Your task to perform on an android device: clear all cookies in the chrome app Image 0: 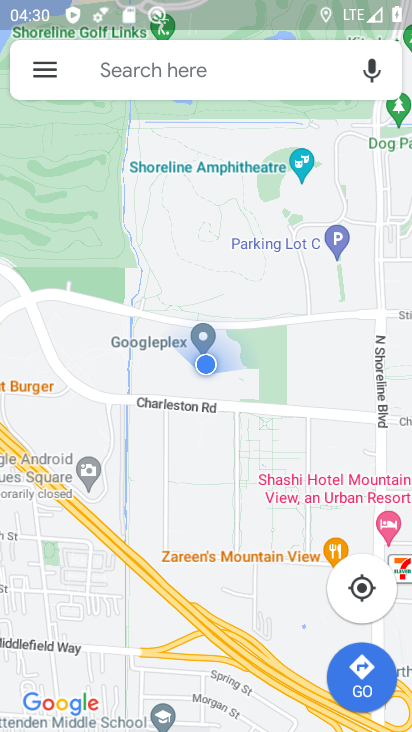
Step 0: press home button
Your task to perform on an android device: clear all cookies in the chrome app Image 1: 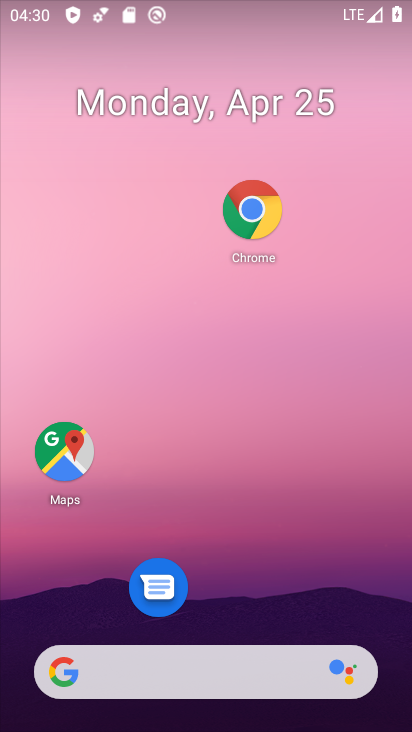
Step 1: click (252, 207)
Your task to perform on an android device: clear all cookies in the chrome app Image 2: 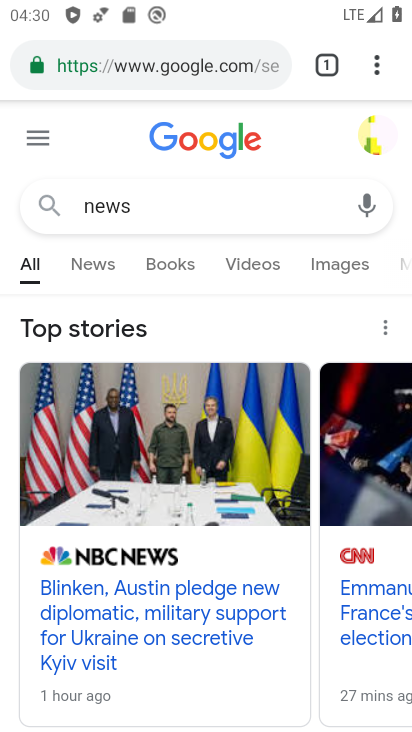
Step 2: click (384, 79)
Your task to perform on an android device: clear all cookies in the chrome app Image 3: 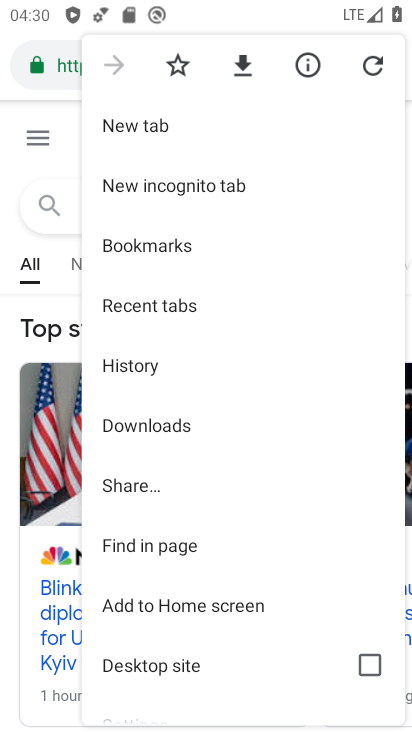
Step 3: click (258, 364)
Your task to perform on an android device: clear all cookies in the chrome app Image 4: 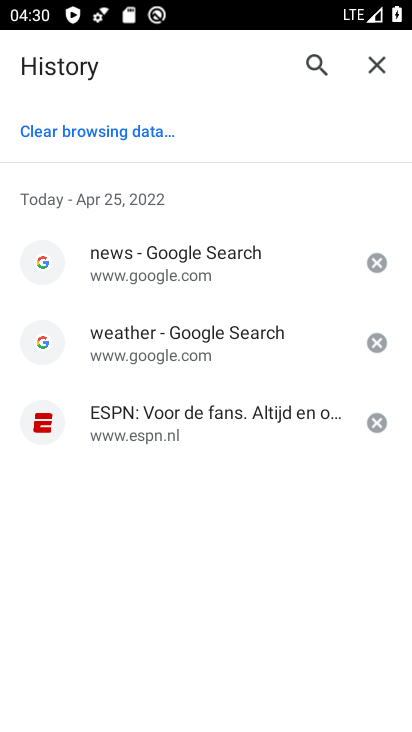
Step 4: click (146, 141)
Your task to perform on an android device: clear all cookies in the chrome app Image 5: 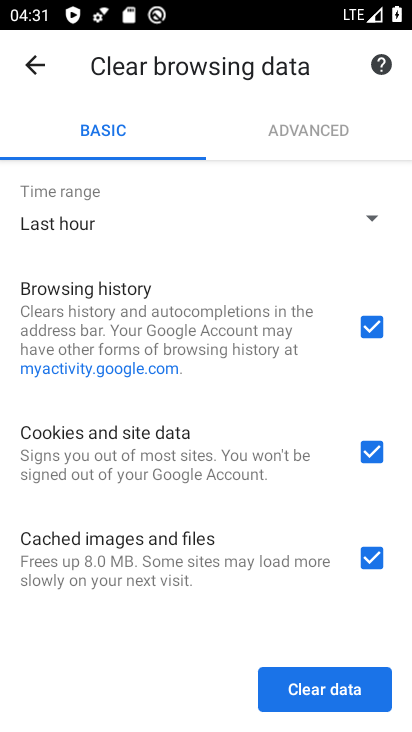
Step 5: click (374, 562)
Your task to perform on an android device: clear all cookies in the chrome app Image 6: 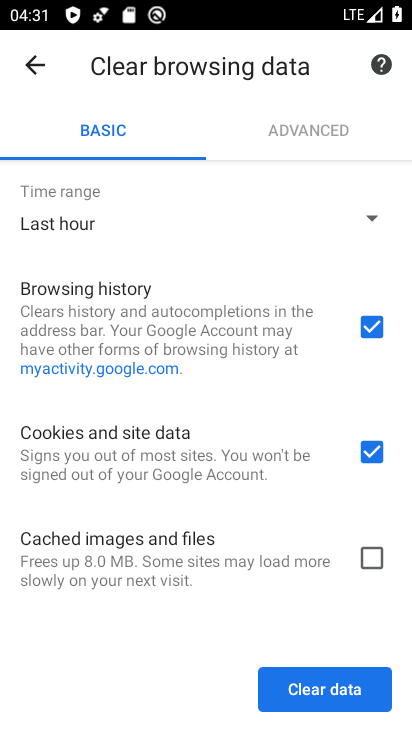
Step 6: click (382, 323)
Your task to perform on an android device: clear all cookies in the chrome app Image 7: 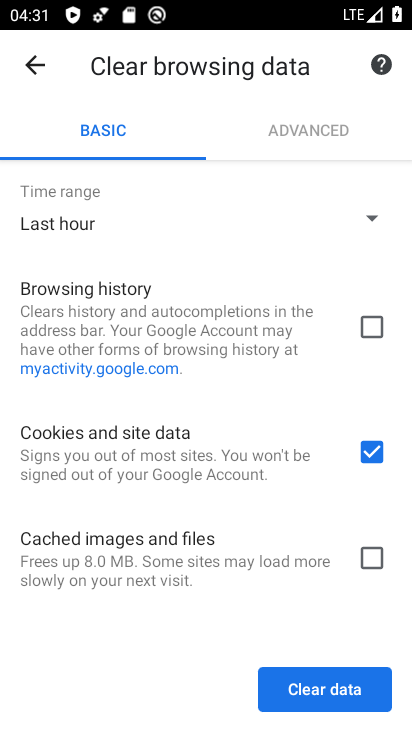
Step 7: click (338, 695)
Your task to perform on an android device: clear all cookies in the chrome app Image 8: 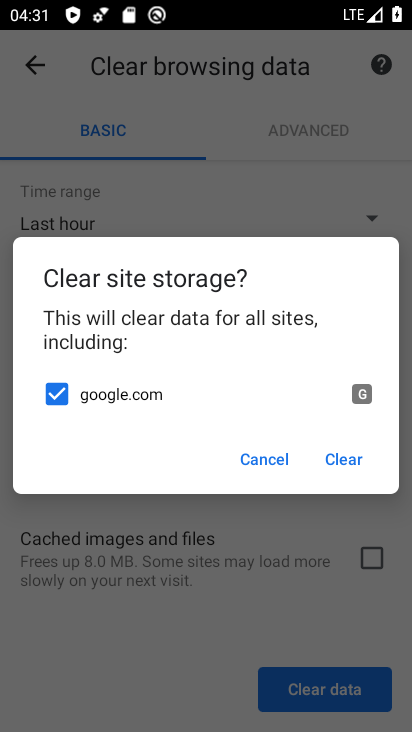
Step 8: click (359, 459)
Your task to perform on an android device: clear all cookies in the chrome app Image 9: 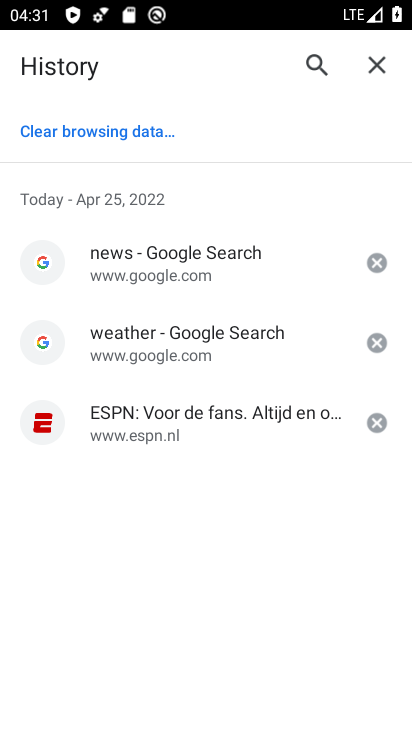
Step 9: task complete